Your task to perform on an android device: toggle notification dots Image 0: 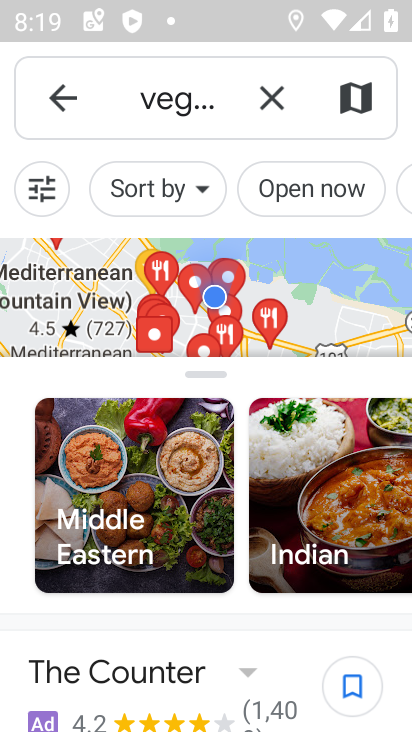
Step 0: press home button
Your task to perform on an android device: toggle notification dots Image 1: 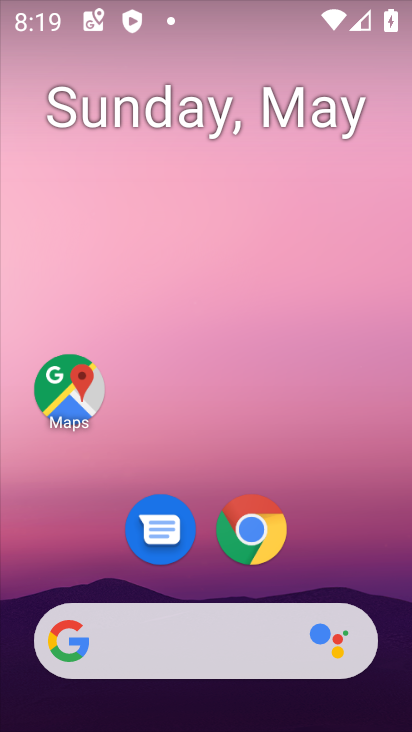
Step 1: drag from (376, 611) to (405, 218)
Your task to perform on an android device: toggle notification dots Image 2: 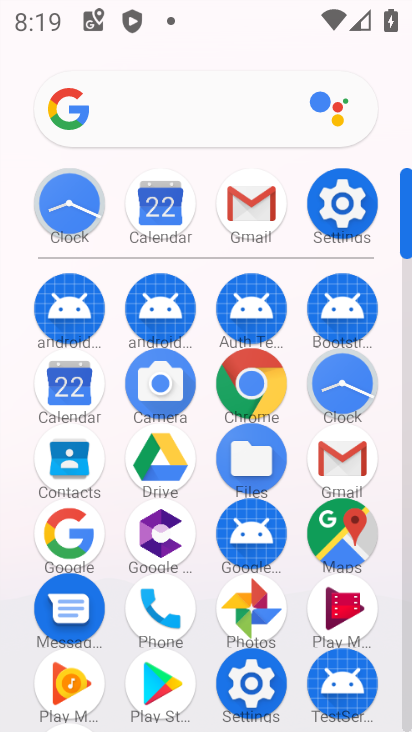
Step 2: click (344, 199)
Your task to perform on an android device: toggle notification dots Image 3: 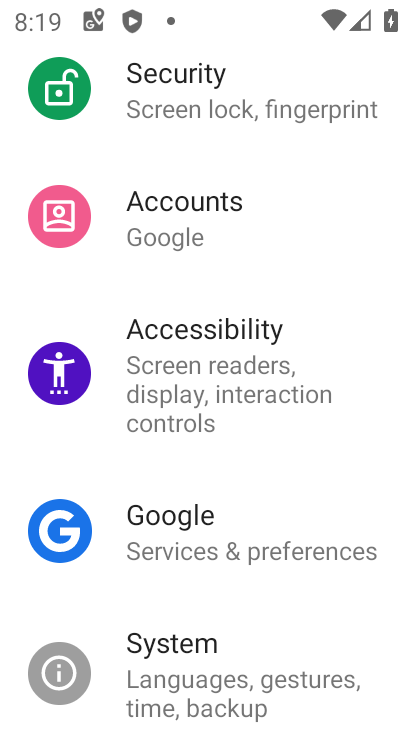
Step 3: drag from (364, 239) to (390, 544)
Your task to perform on an android device: toggle notification dots Image 4: 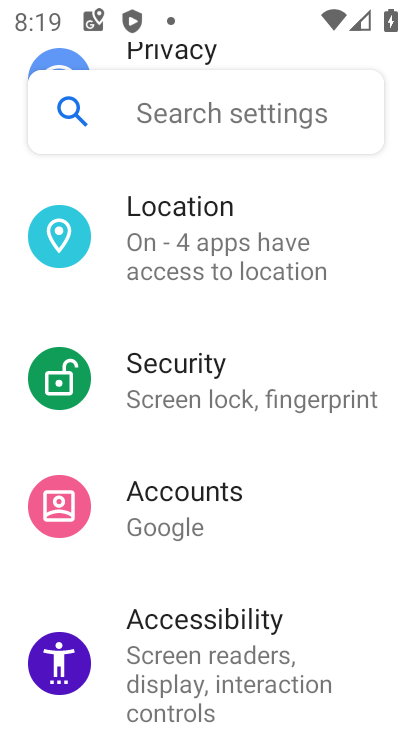
Step 4: drag from (391, 224) to (393, 697)
Your task to perform on an android device: toggle notification dots Image 5: 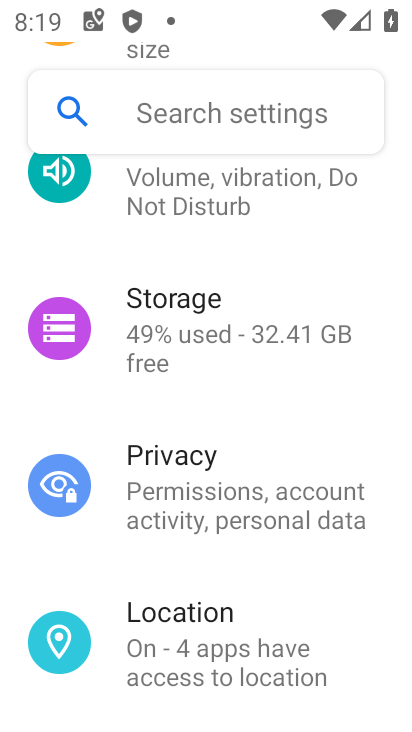
Step 5: drag from (378, 264) to (395, 727)
Your task to perform on an android device: toggle notification dots Image 6: 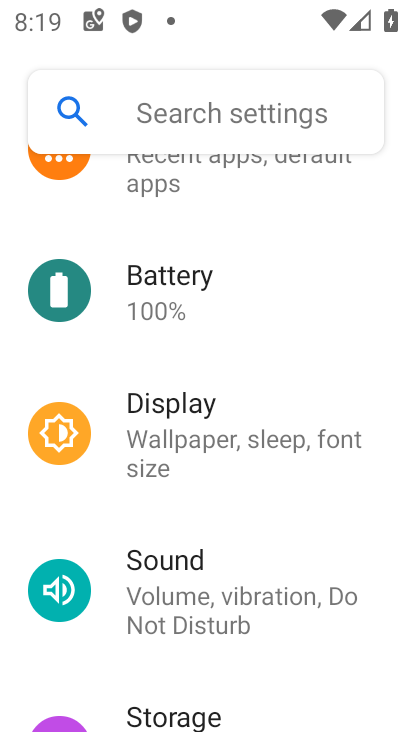
Step 6: drag from (379, 259) to (377, 702)
Your task to perform on an android device: toggle notification dots Image 7: 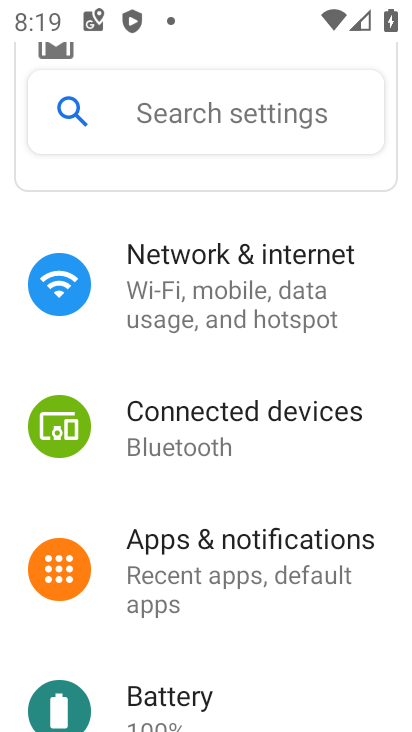
Step 7: click (254, 570)
Your task to perform on an android device: toggle notification dots Image 8: 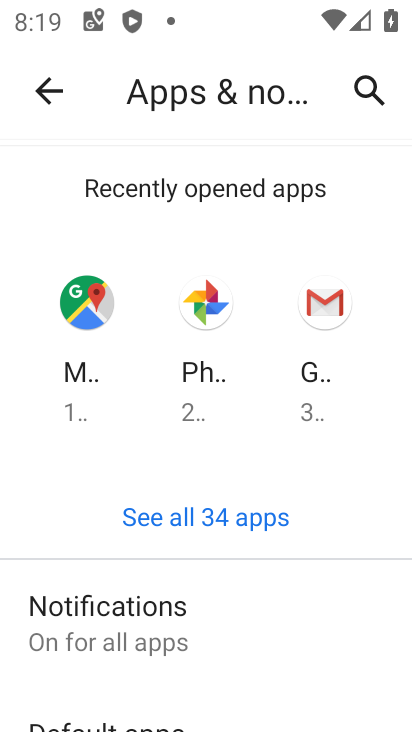
Step 8: drag from (358, 634) to (333, 100)
Your task to perform on an android device: toggle notification dots Image 9: 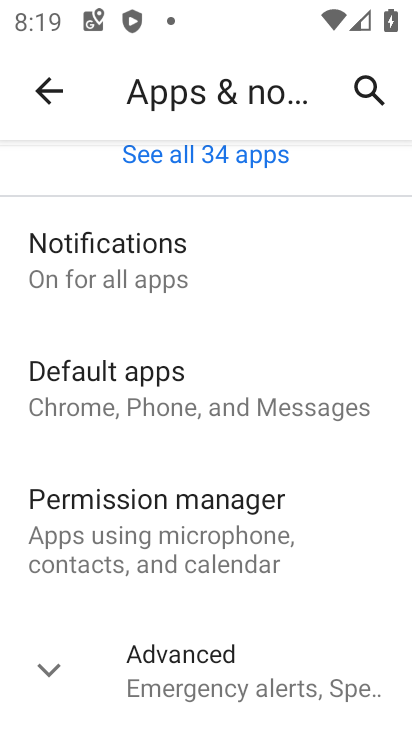
Step 9: click (83, 263)
Your task to perform on an android device: toggle notification dots Image 10: 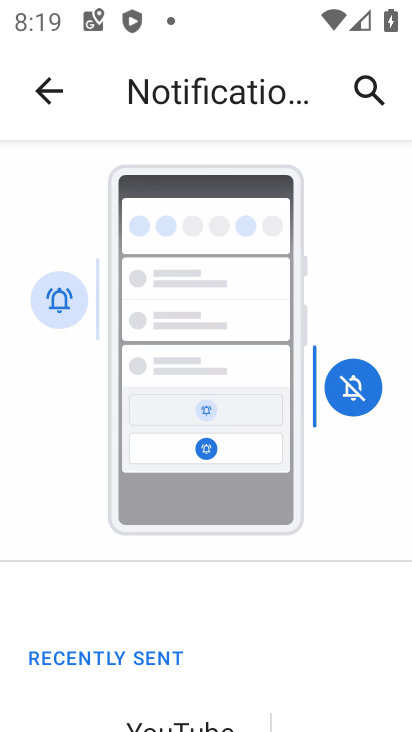
Step 10: drag from (266, 629) to (230, 43)
Your task to perform on an android device: toggle notification dots Image 11: 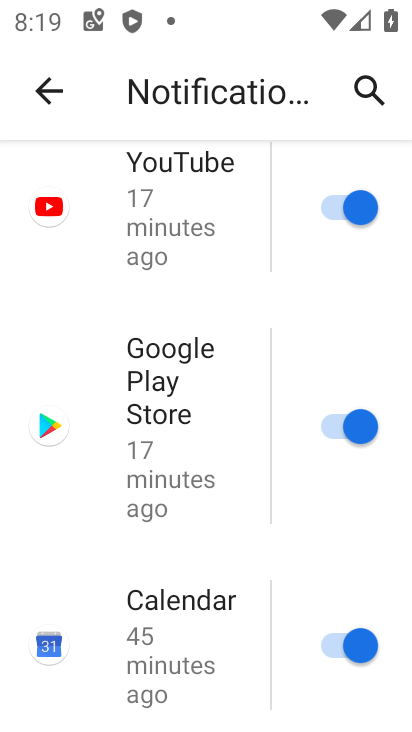
Step 11: drag from (236, 615) to (210, 0)
Your task to perform on an android device: toggle notification dots Image 12: 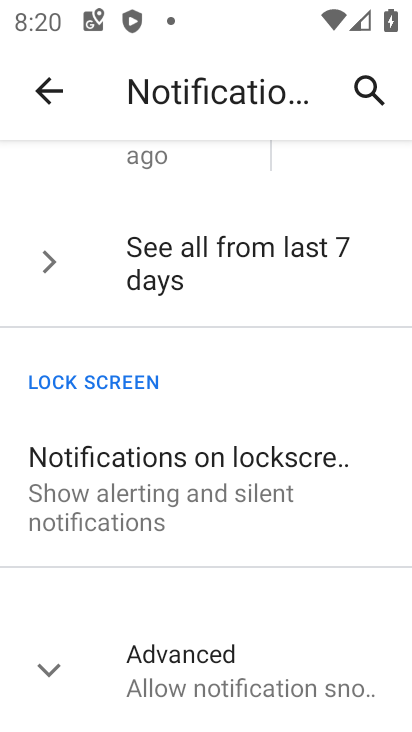
Step 12: drag from (80, 655) to (94, 282)
Your task to perform on an android device: toggle notification dots Image 13: 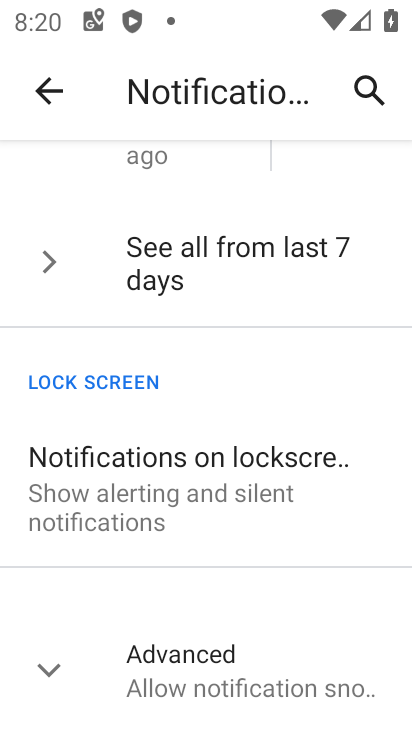
Step 13: click (49, 686)
Your task to perform on an android device: toggle notification dots Image 14: 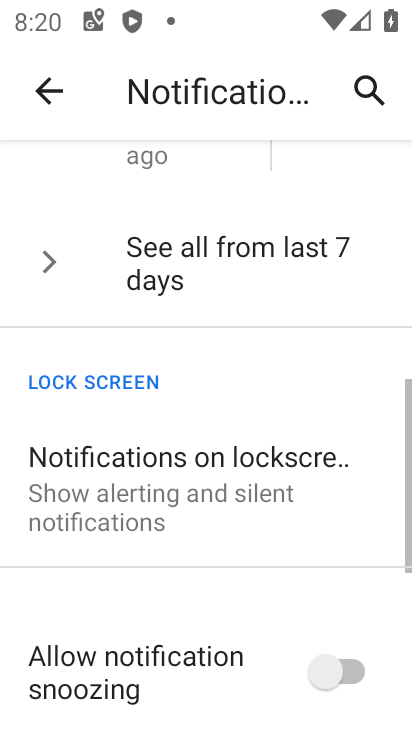
Step 14: drag from (201, 661) to (187, 131)
Your task to perform on an android device: toggle notification dots Image 15: 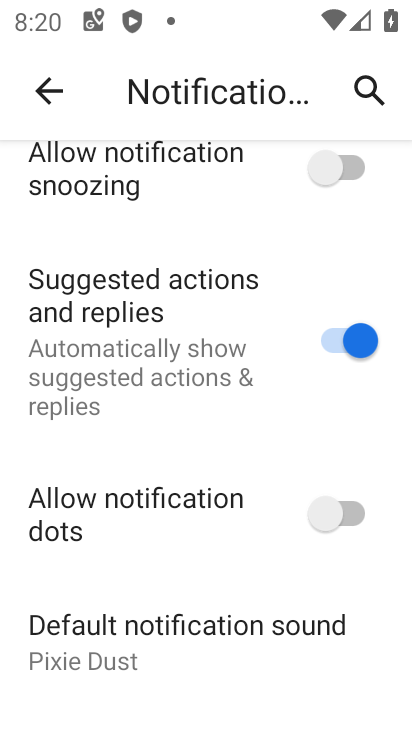
Step 15: click (349, 509)
Your task to perform on an android device: toggle notification dots Image 16: 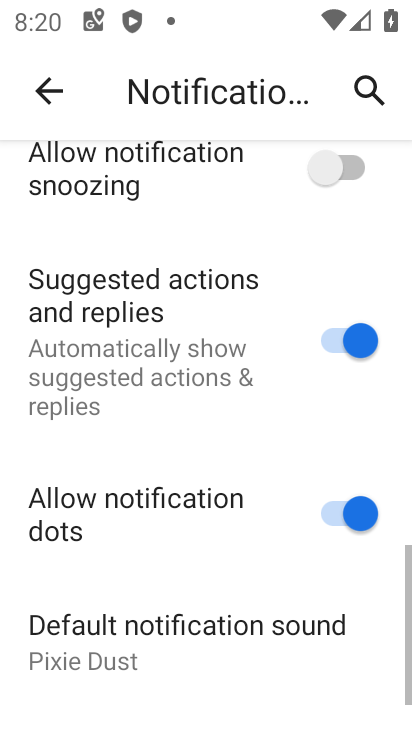
Step 16: task complete